Your task to perform on an android device: Show me the alarms in the clock app Image 0: 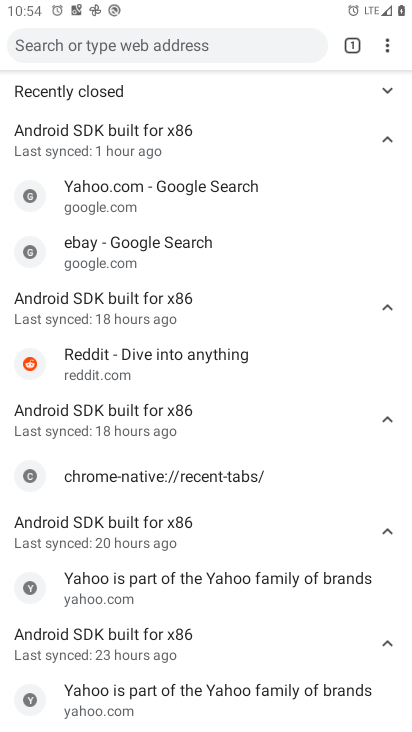
Step 0: press home button
Your task to perform on an android device: Show me the alarms in the clock app Image 1: 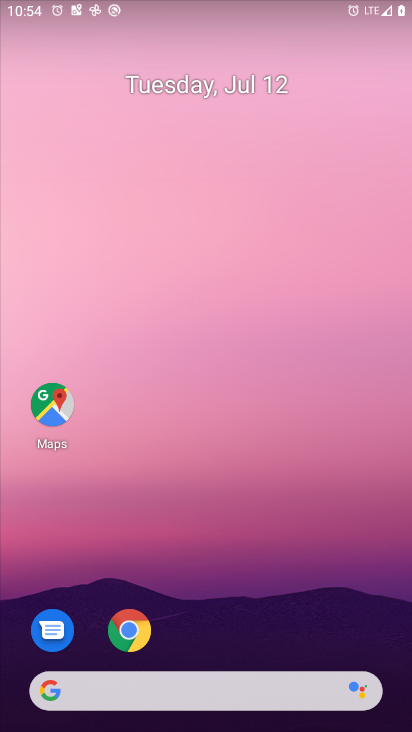
Step 1: drag from (297, 470) to (219, 16)
Your task to perform on an android device: Show me the alarms in the clock app Image 2: 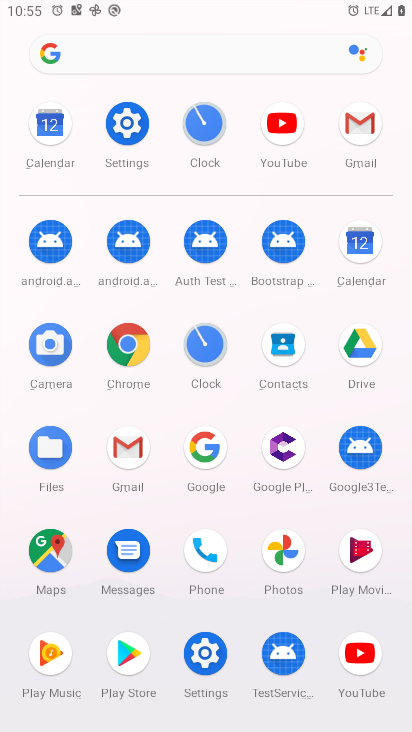
Step 2: click (214, 354)
Your task to perform on an android device: Show me the alarms in the clock app Image 3: 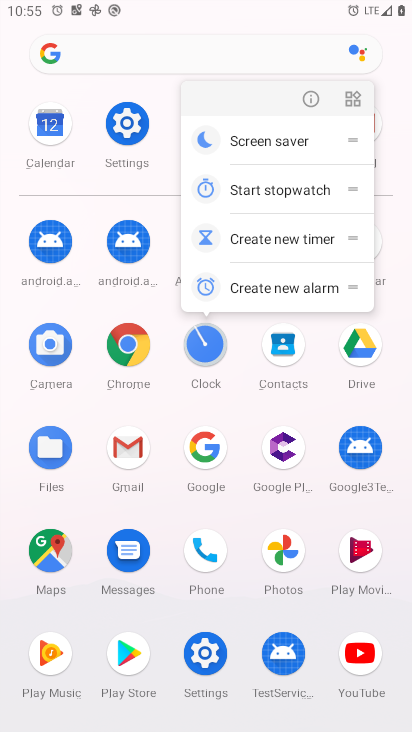
Step 3: click (194, 354)
Your task to perform on an android device: Show me the alarms in the clock app Image 4: 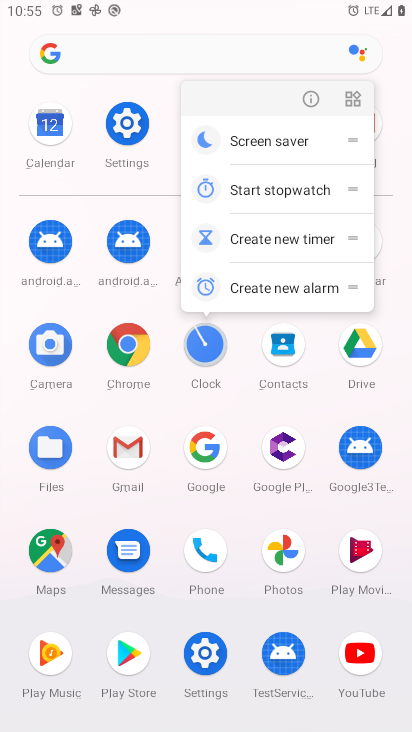
Step 4: click (198, 351)
Your task to perform on an android device: Show me the alarms in the clock app Image 5: 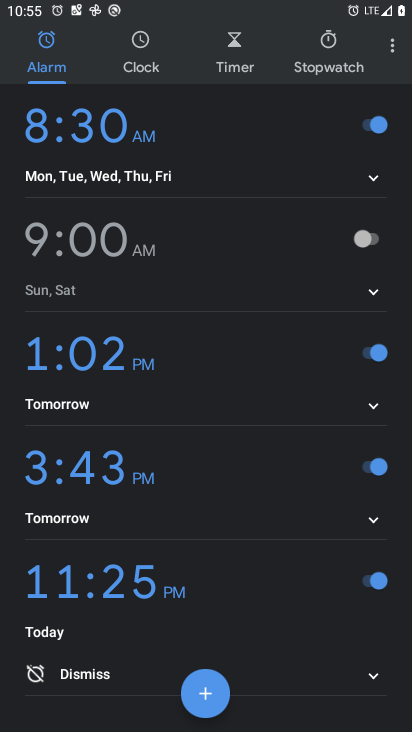
Step 5: task complete